Your task to perform on an android device: Search for vegetarian restaurants on Maps Image 0: 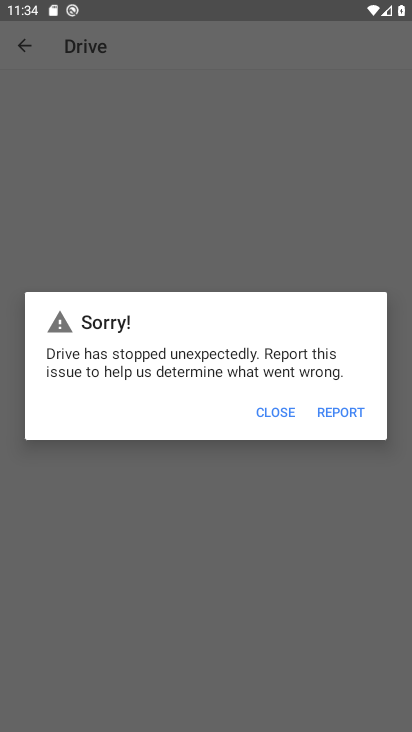
Step 0: click (278, 399)
Your task to perform on an android device: Search for vegetarian restaurants on Maps Image 1: 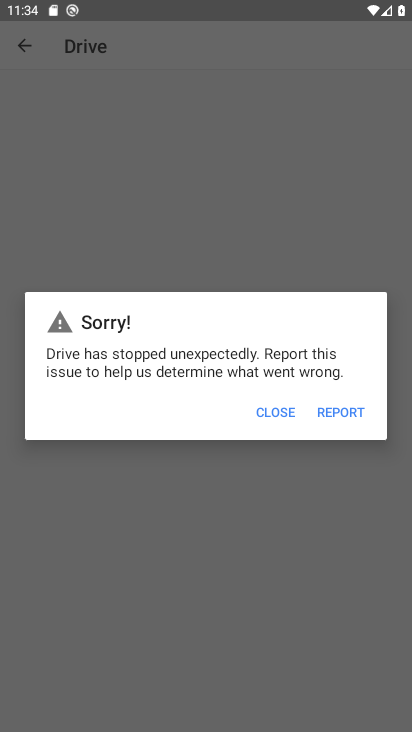
Step 1: click (277, 407)
Your task to perform on an android device: Search for vegetarian restaurants on Maps Image 2: 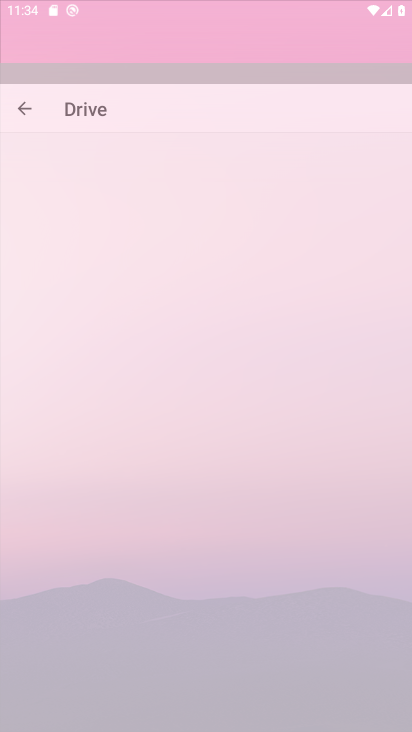
Step 2: click (277, 408)
Your task to perform on an android device: Search for vegetarian restaurants on Maps Image 3: 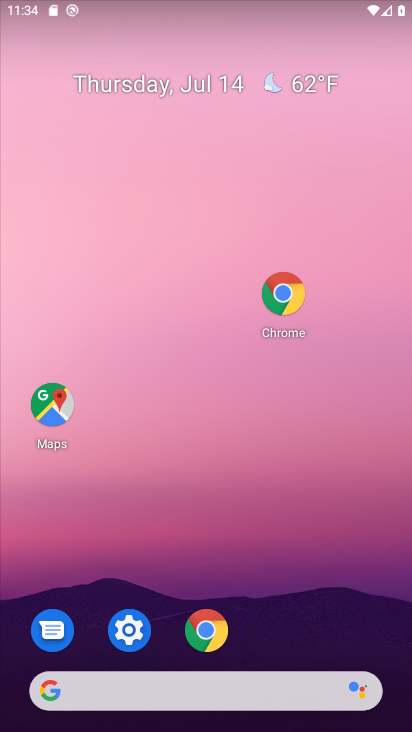
Step 3: drag from (241, 491) to (179, 138)
Your task to perform on an android device: Search for vegetarian restaurants on Maps Image 4: 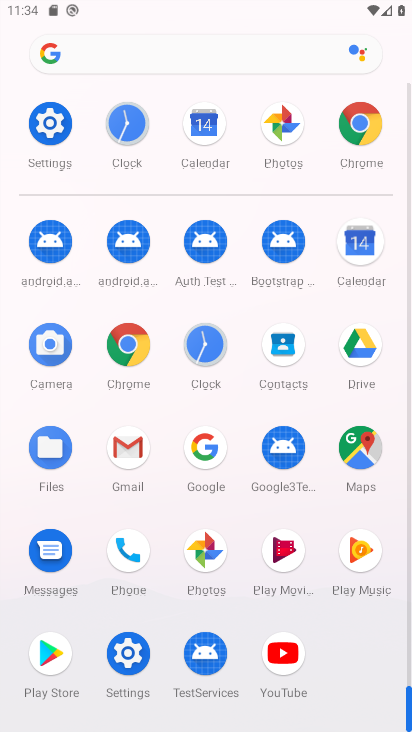
Step 4: click (365, 442)
Your task to perform on an android device: Search for vegetarian restaurants on Maps Image 5: 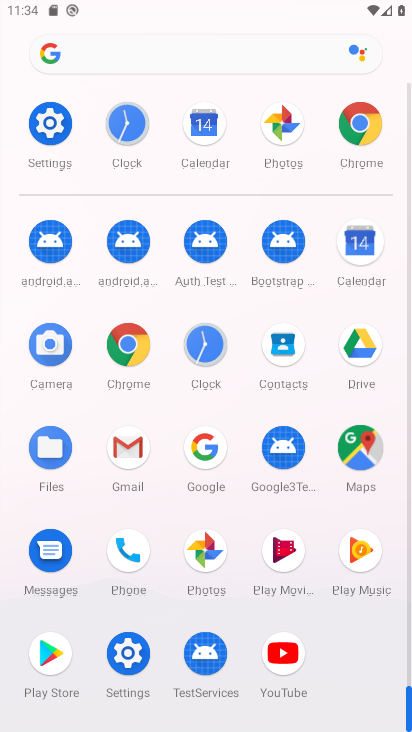
Step 5: click (365, 442)
Your task to perform on an android device: Search for vegetarian restaurants on Maps Image 6: 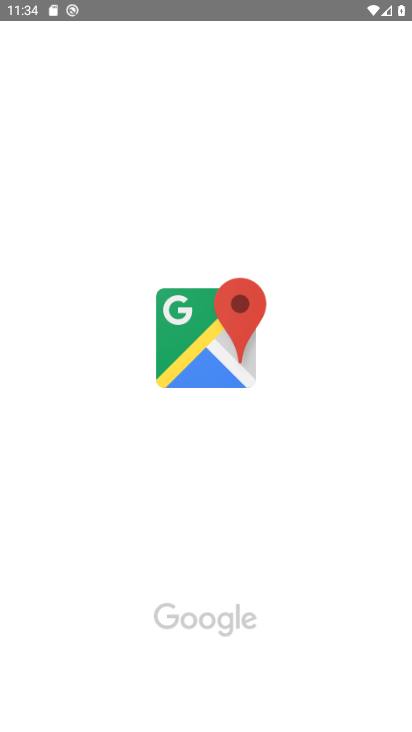
Step 6: click (362, 444)
Your task to perform on an android device: Search for vegetarian restaurants on Maps Image 7: 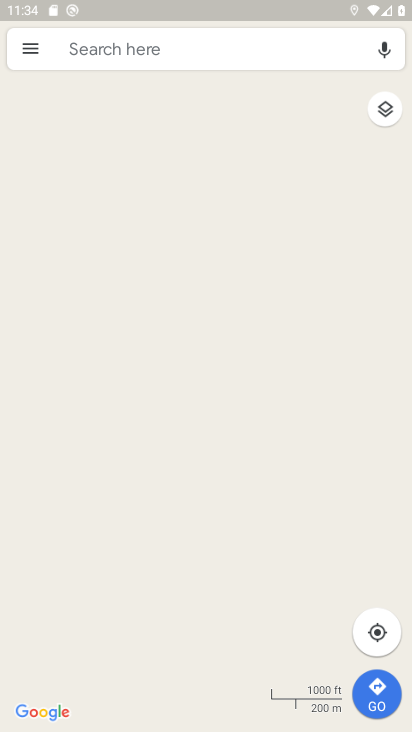
Step 7: click (77, 45)
Your task to perform on an android device: Search for vegetarian restaurants on Maps Image 8: 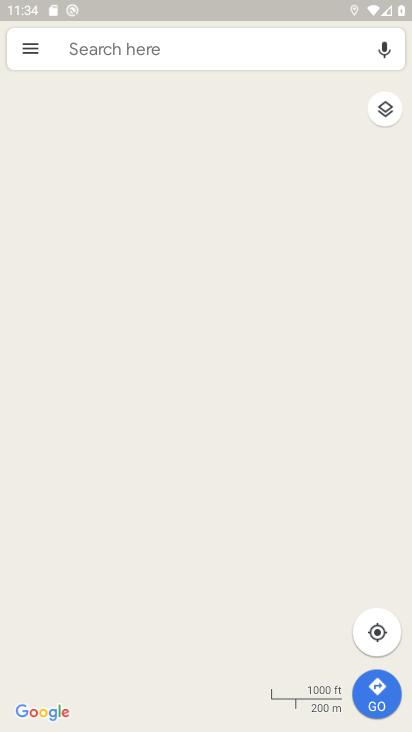
Step 8: click (94, 47)
Your task to perform on an android device: Search for vegetarian restaurants on Maps Image 9: 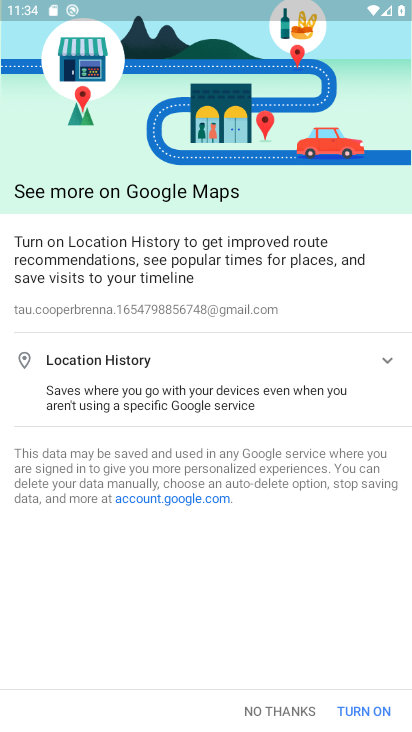
Step 9: type "vegetarian restaurants"
Your task to perform on an android device: Search for vegetarian restaurants on Maps Image 10: 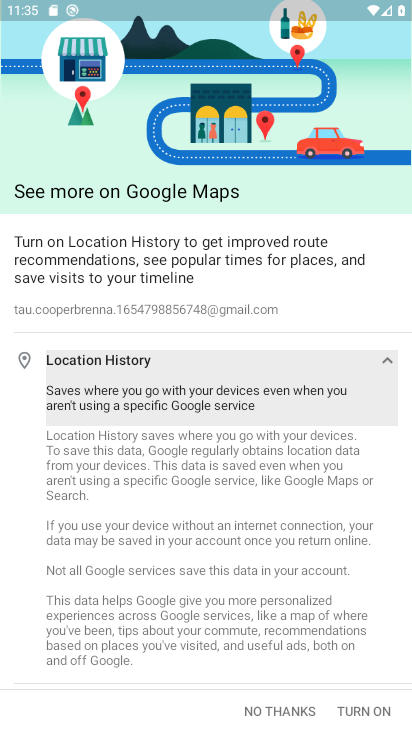
Step 10: task complete